Your task to perform on an android device: toggle show notifications on the lock screen Image 0: 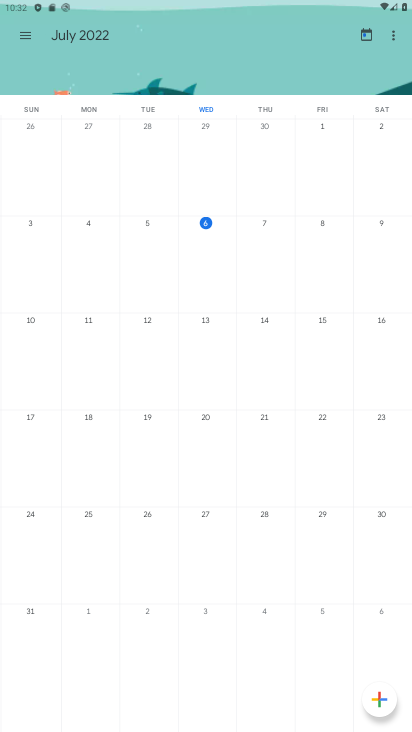
Step 0: press home button
Your task to perform on an android device: toggle show notifications on the lock screen Image 1: 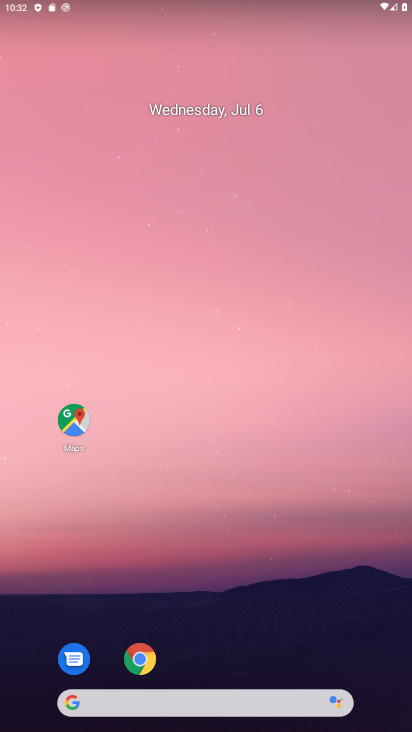
Step 1: drag from (227, 554) to (100, 182)
Your task to perform on an android device: toggle show notifications on the lock screen Image 2: 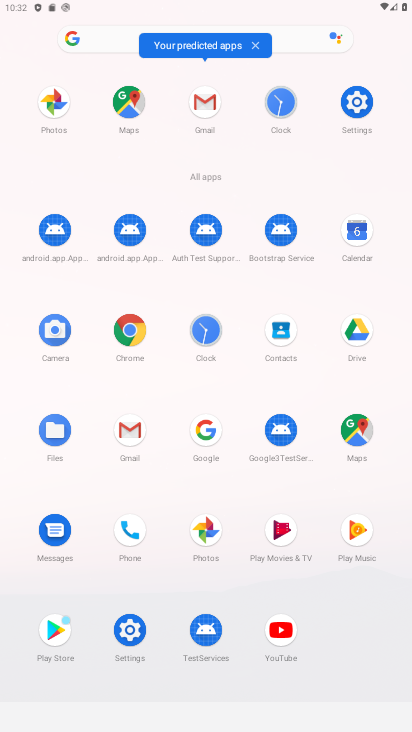
Step 2: click (364, 105)
Your task to perform on an android device: toggle show notifications on the lock screen Image 3: 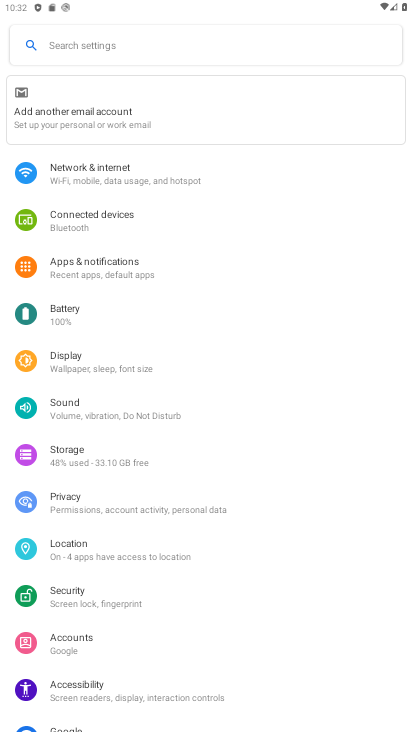
Step 3: click (112, 263)
Your task to perform on an android device: toggle show notifications on the lock screen Image 4: 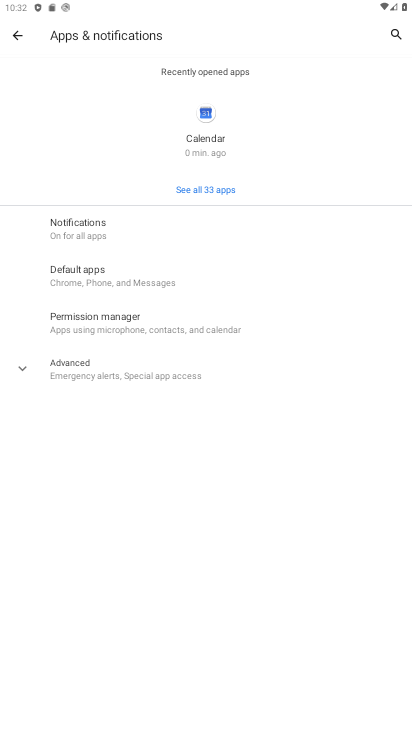
Step 4: click (95, 228)
Your task to perform on an android device: toggle show notifications on the lock screen Image 5: 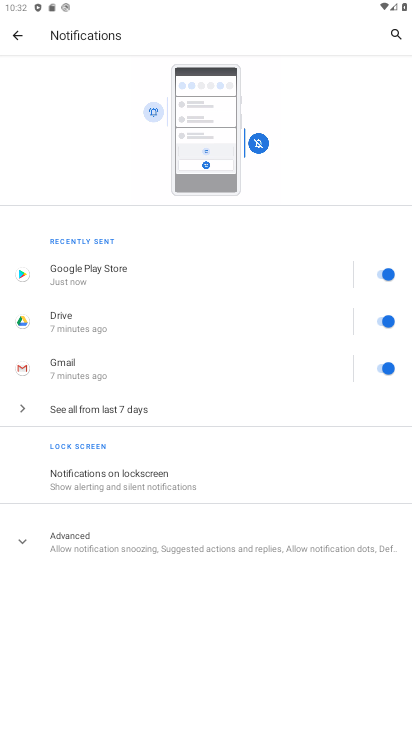
Step 5: click (129, 472)
Your task to perform on an android device: toggle show notifications on the lock screen Image 6: 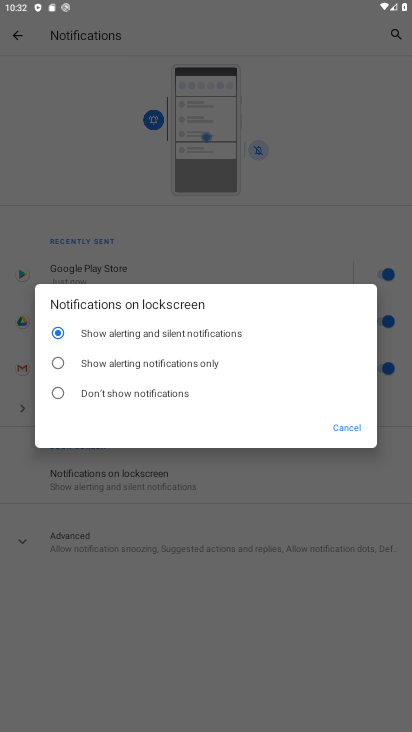
Step 6: click (57, 390)
Your task to perform on an android device: toggle show notifications on the lock screen Image 7: 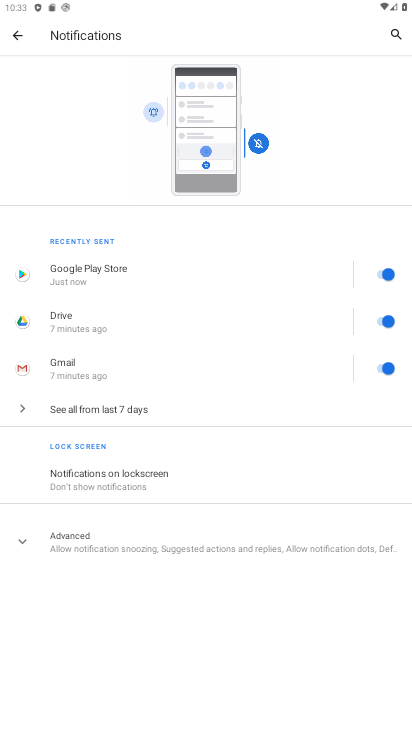
Step 7: task complete